Your task to perform on an android device: Open Chrome and go to settings Image 0: 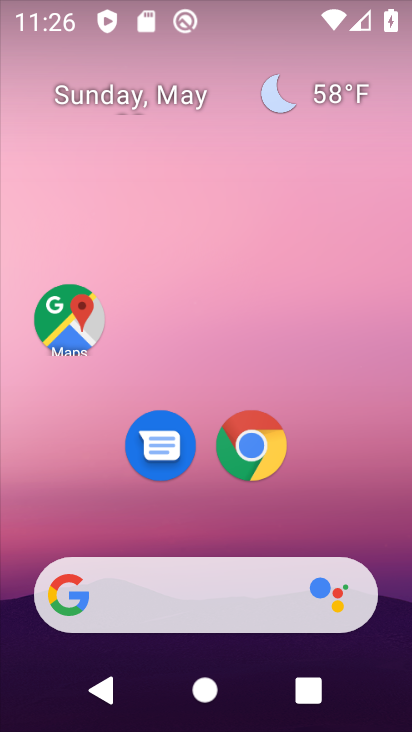
Step 0: press home button
Your task to perform on an android device: Open Chrome and go to settings Image 1: 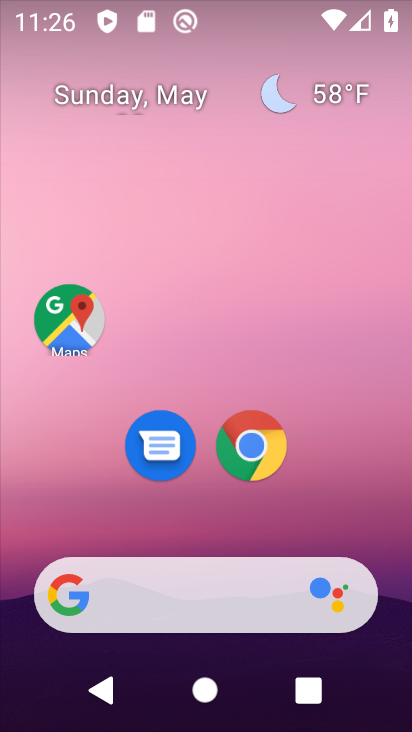
Step 1: click (246, 444)
Your task to perform on an android device: Open Chrome and go to settings Image 2: 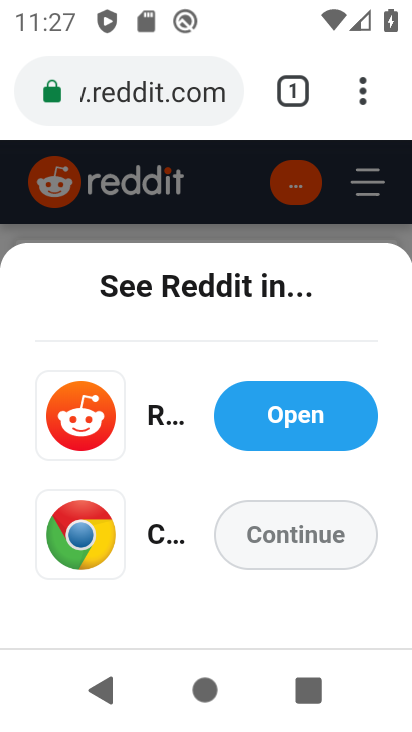
Step 2: click (354, 90)
Your task to perform on an android device: Open Chrome and go to settings Image 3: 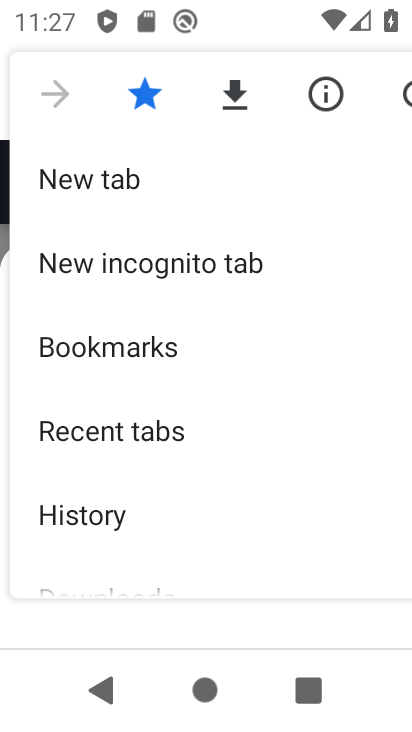
Step 3: drag from (176, 553) to (211, 63)
Your task to perform on an android device: Open Chrome and go to settings Image 4: 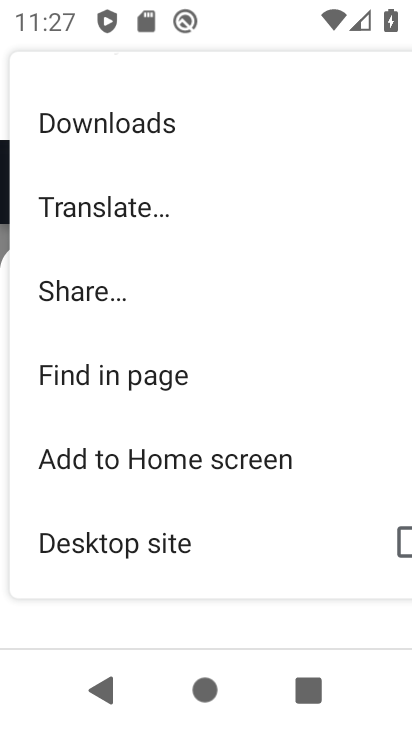
Step 4: drag from (148, 533) to (178, 181)
Your task to perform on an android device: Open Chrome and go to settings Image 5: 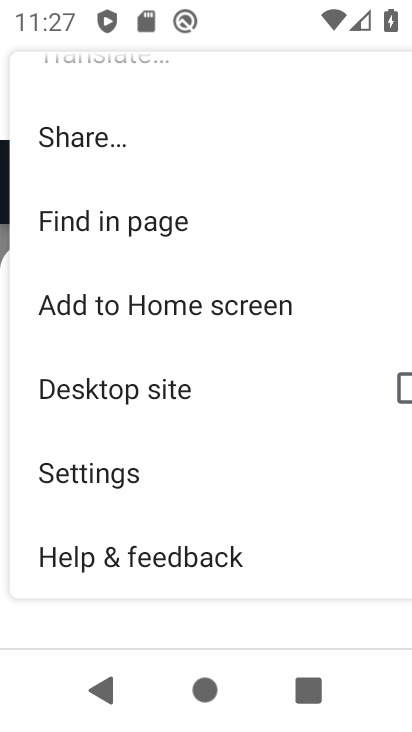
Step 5: click (144, 472)
Your task to perform on an android device: Open Chrome and go to settings Image 6: 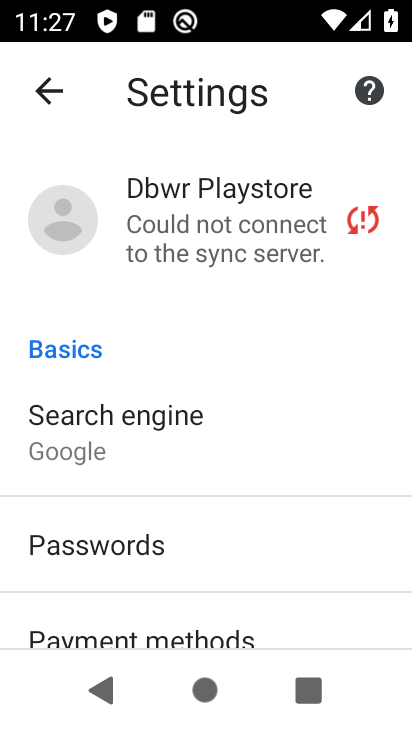
Step 6: task complete